Your task to perform on an android device: open the mobile data screen to see how much data has been used Image 0: 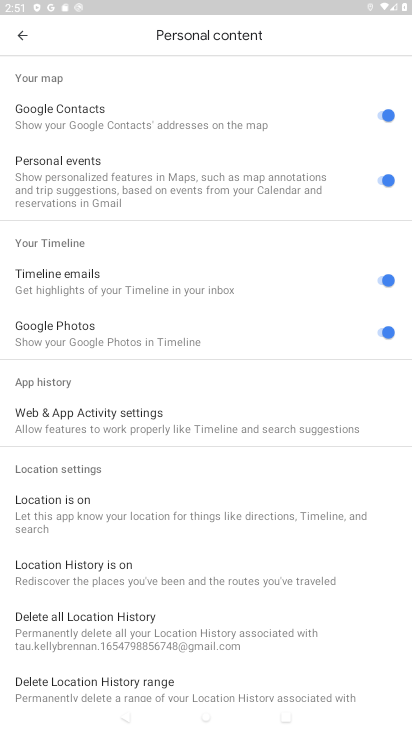
Step 0: press home button
Your task to perform on an android device: open the mobile data screen to see how much data has been used Image 1: 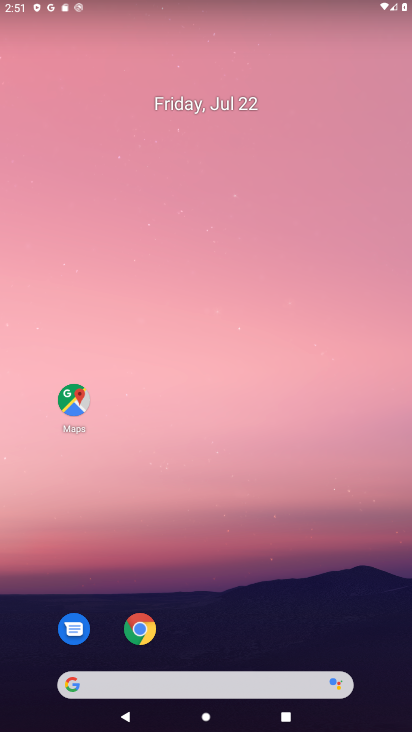
Step 1: drag from (254, 596) to (130, 47)
Your task to perform on an android device: open the mobile data screen to see how much data has been used Image 2: 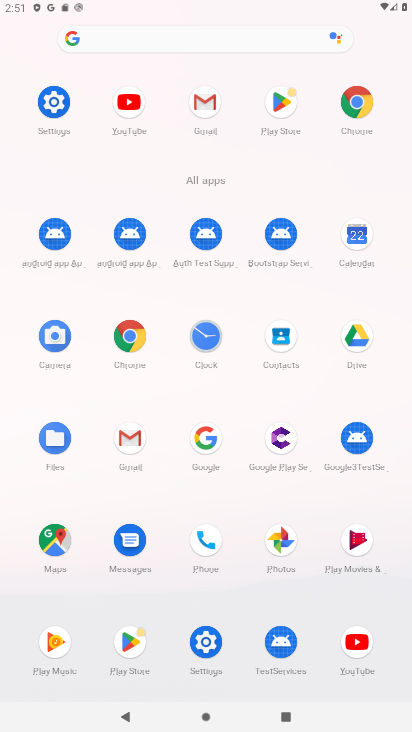
Step 2: click (57, 94)
Your task to perform on an android device: open the mobile data screen to see how much data has been used Image 3: 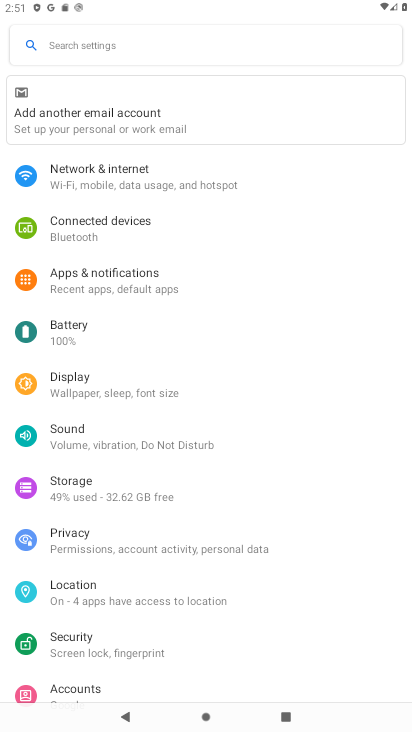
Step 3: click (109, 167)
Your task to perform on an android device: open the mobile data screen to see how much data has been used Image 4: 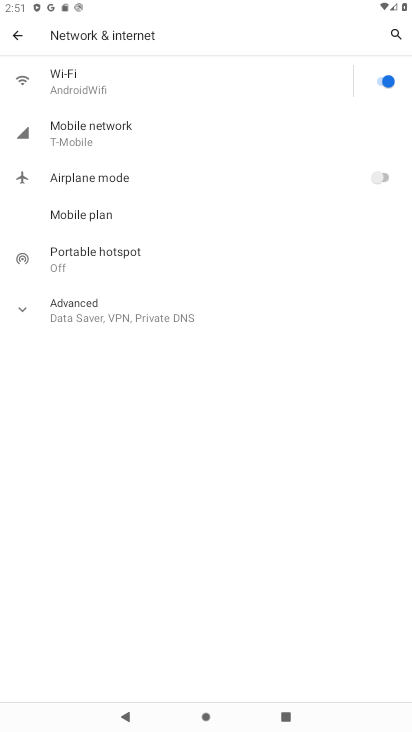
Step 4: click (115, 117)
Your task to perform on an android device: open the mobile data screen to see how much data has been used Image 5: 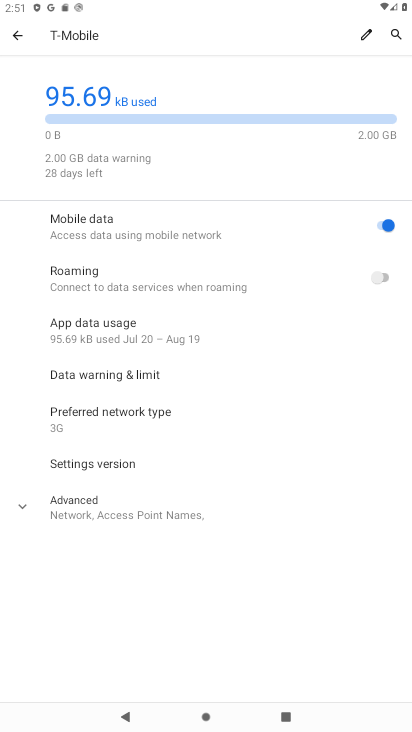
Step 5: task complete